Your task to perform on an android device: Open sound settings Image 0: 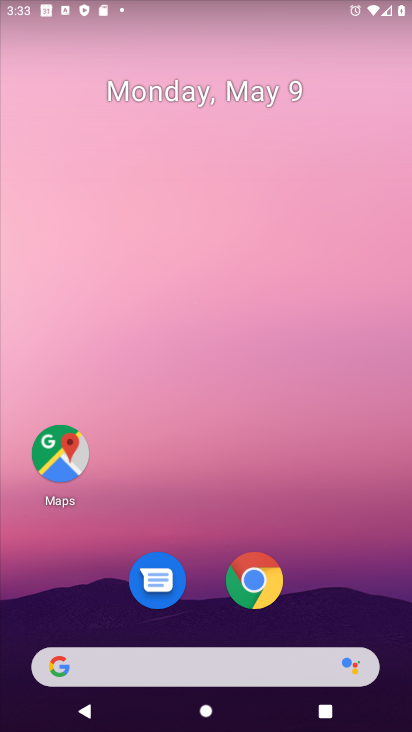
Step 0: drag from (367, 557) to (237, 79)
Your task to perform on an android device: Open sound settings Image 1: 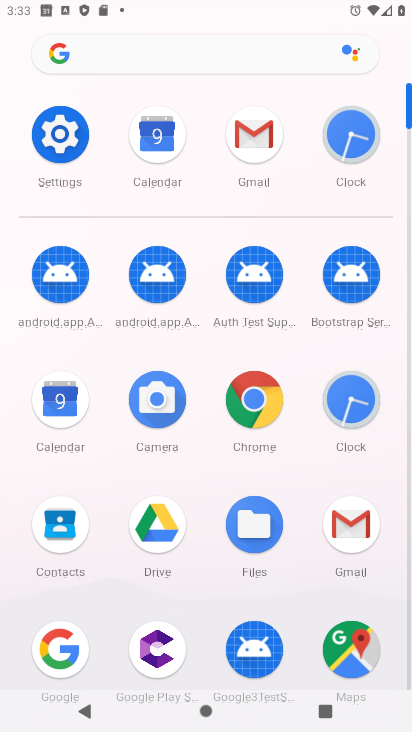
Step 1: click (62, 148)
Your task to perform on an android device: Open sound settings Image 2: 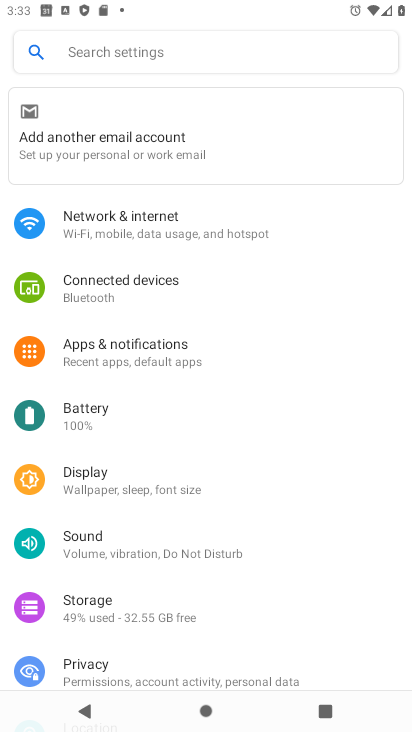
Step 2: click (160, 545)
Your task to perform on an android device: Open sound settings Image 3: 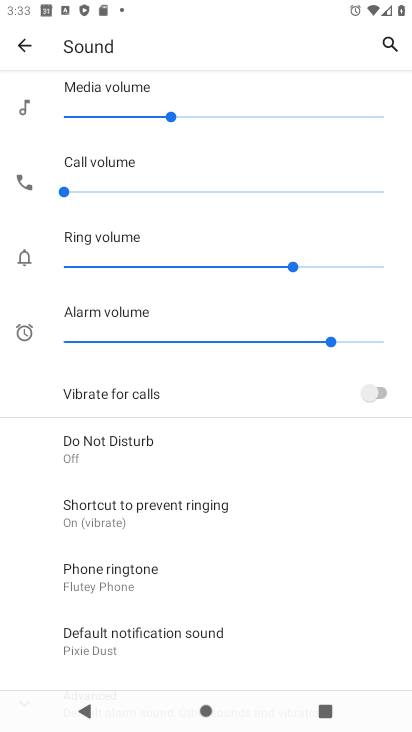
Step 3: task complete